Your task to perform on an android device: open a new tab in the chrome app Image 0: 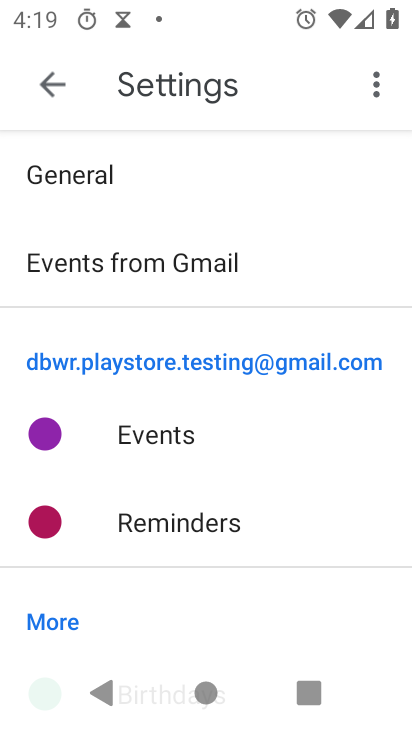
Step 0: press home button
Your task to perform on an android device: open a new tab in the chrome app Image 1: 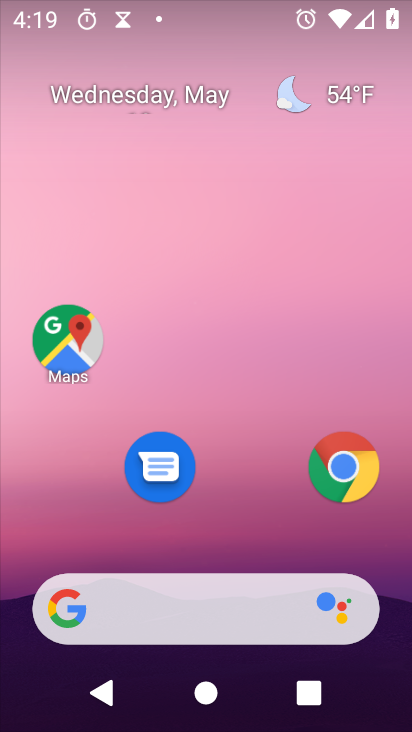
Step 1: drag from (277, 540) to (218, 80)
Your task to perform on an android device: open a new tab in the chrome app Image 2: 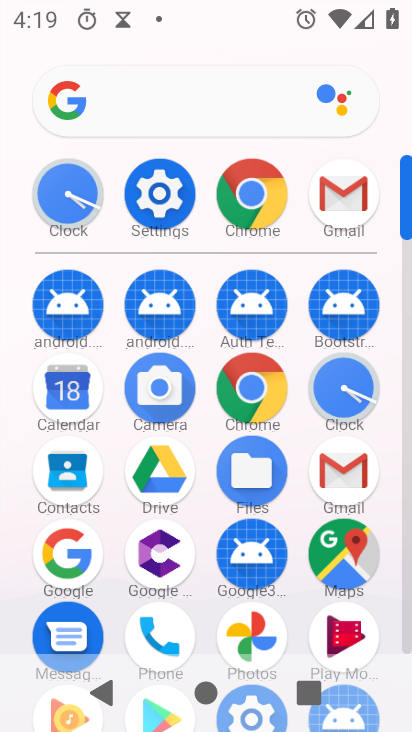
Step 2: click (258, 207)
Your task to perform on an android device: open a new tab in the chrome app Image 3: 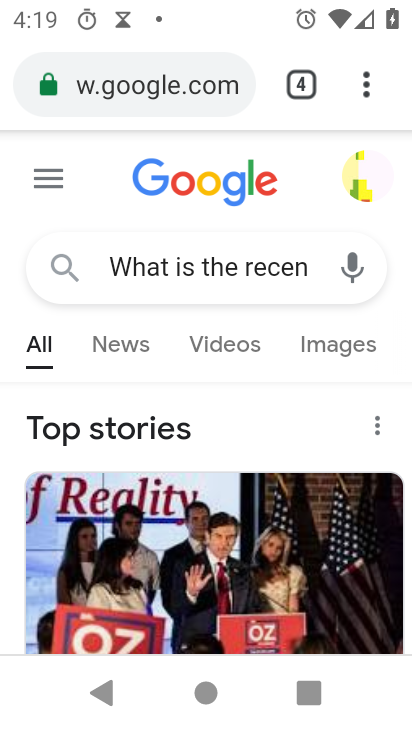
Step 3: click (378, 64)
Your task to perform on an android device: open a new tab in the chrome app Image 4: 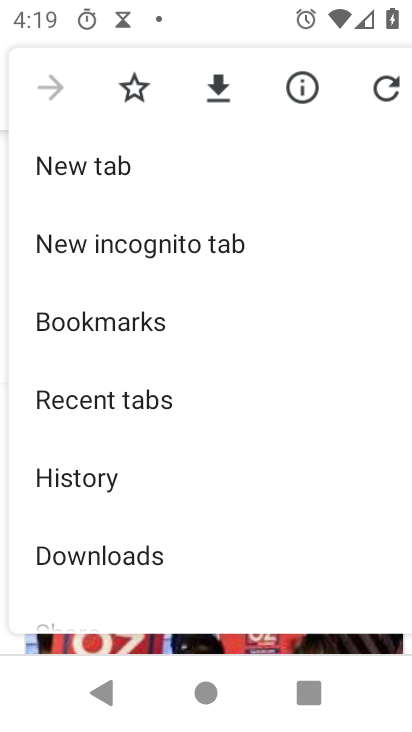
Step 4: click (205, 179)
Your task to perform on an android device: open a new tab in the chrome app Image 5: 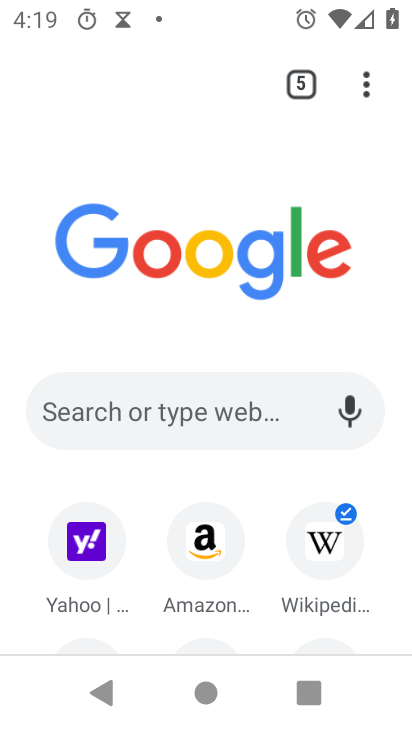
Step 5: task complete